Your task to perform on an android device: View the shopping cart on ebay.com. Search for razer blade on ebay.com, select the first entry, add it to the cart, then select checkout. Image 0: 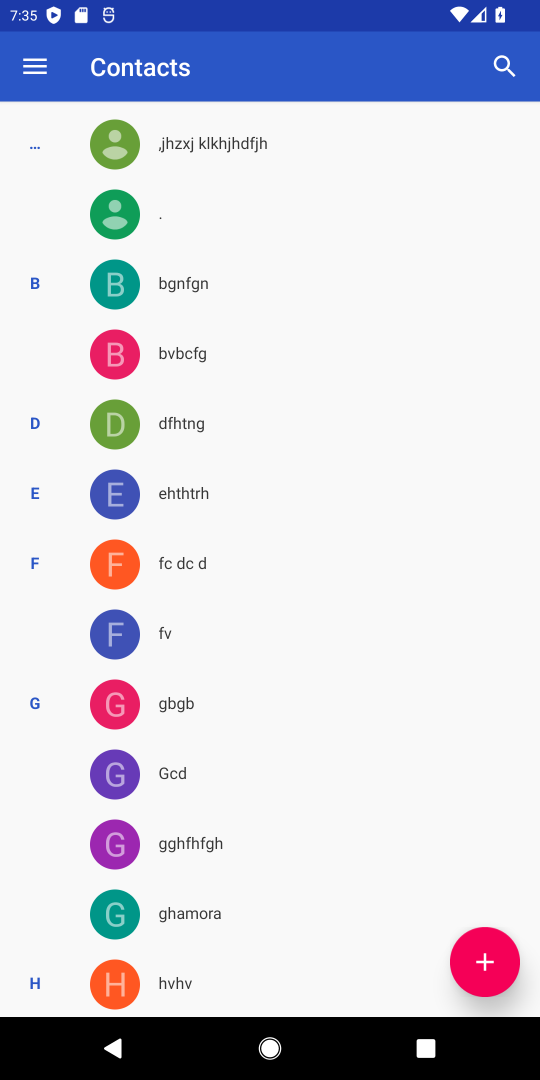
Step 0: press home button
Your task to perform on an android device: View the shopping cart on ebay.com. Search for razer blade on ebay.com, select the first entry, add it to the cart, then select checkout. Image 1: 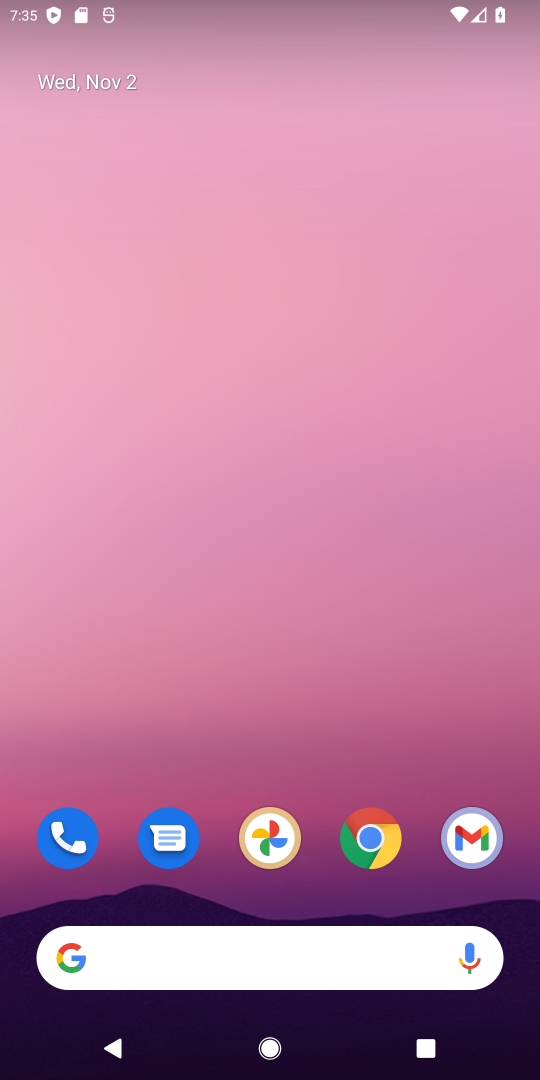
Step 1: click (369, 855)
Your task to perform on an android device: View the shopping cart on ebay.com. Search for razer blade on ebay.com, select the first entry, add it to the cart, then select checkout. Image 2: 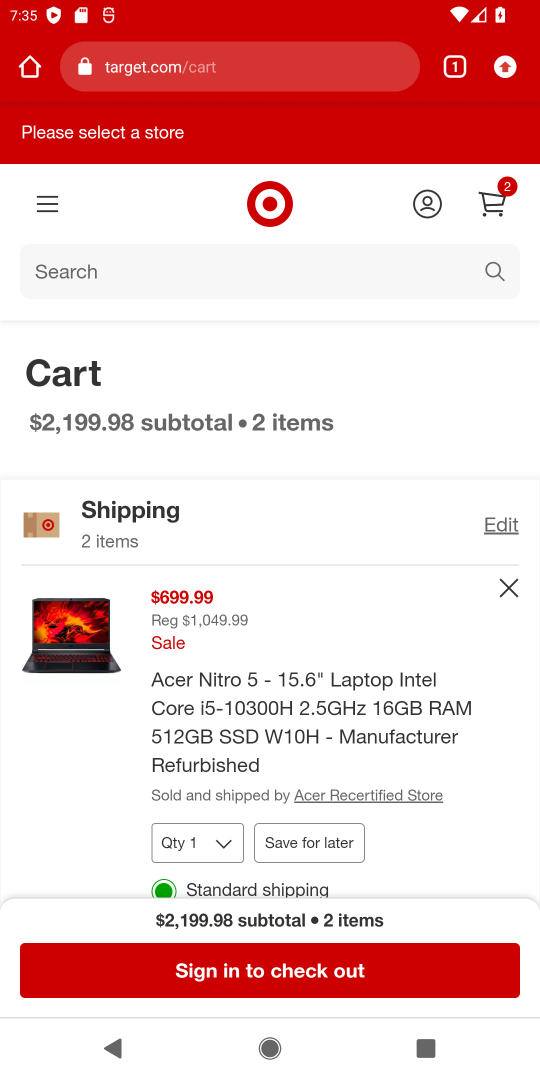
Step 2: click (302, 77)
Your task to perform on an android device: View the shopping cart on ebay.com. Search for razer blade on ebay.com, select the first entry, add it to the cart, then select checkout. Image 3: 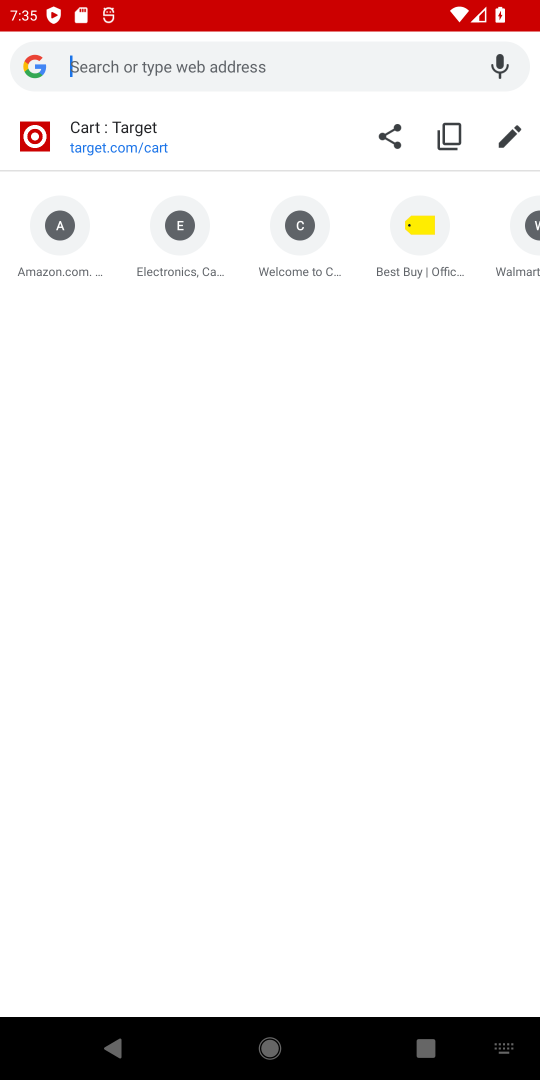
Step 3: type "ebay.com"
Your task to perform on an android device: View the shopping cart on ebay.com. Search for razer blade on ebay.com, select the first entry, add it to the cart, then select checkout. Image 4: 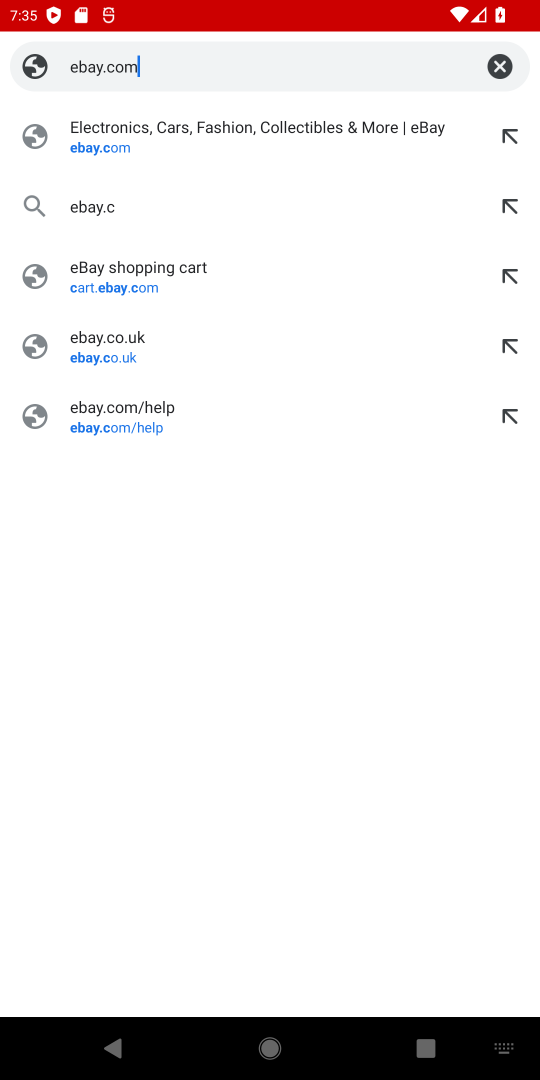
Step 4: type ""
Your task to perform on an android device: View the shopping cart on ebay.com. Search for razer blade on ebay.com, select the first entry, add it to the cart, then select checkout. Image 5: 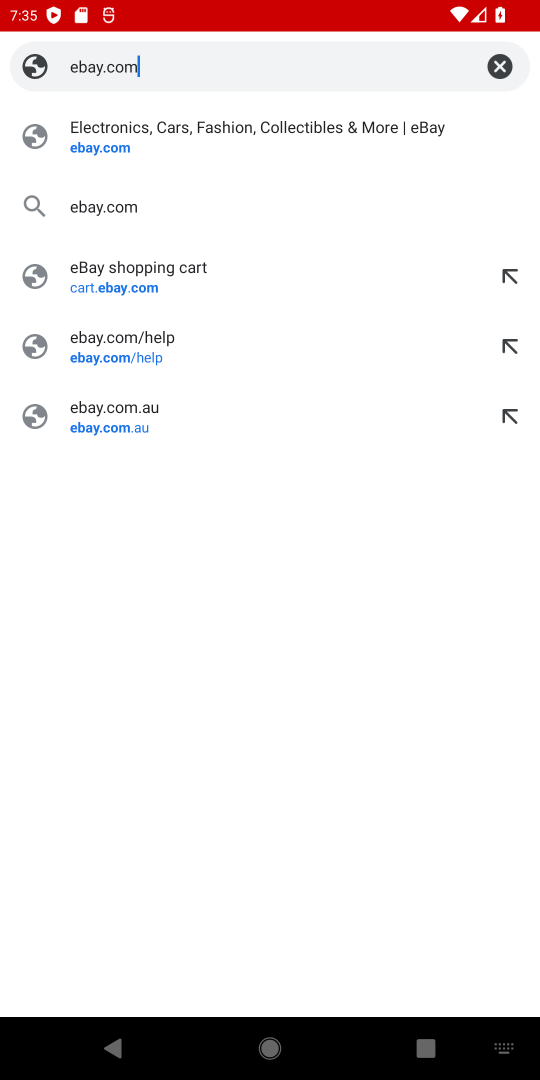
Step 5: press enter
Your task to perform on an android device: View the shopping cart on ebay.com. Search for razer blade on ebay.com, select the first entry, add it to the cart, then select checkout. Image 6: 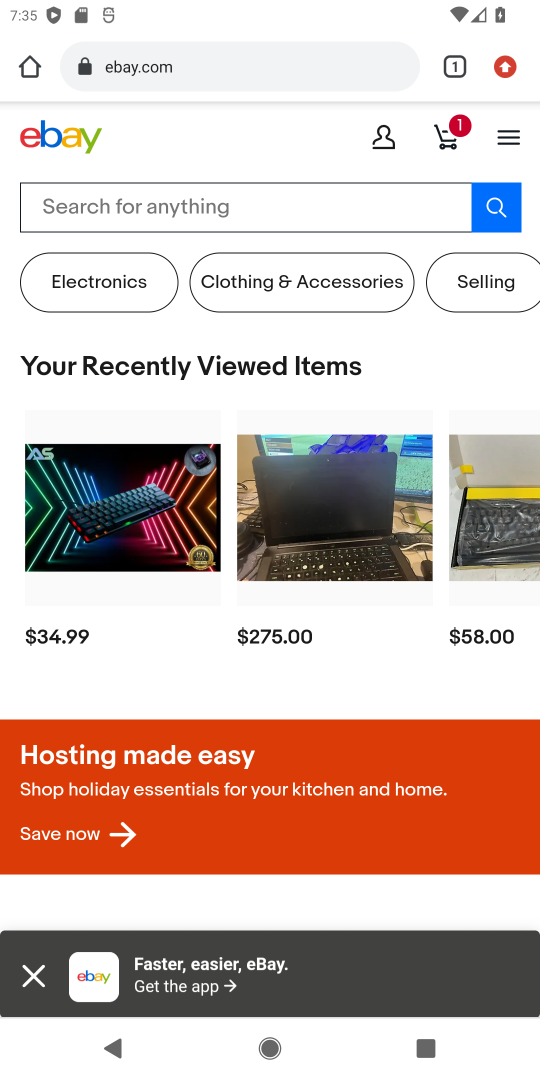
Step 6: click (451, 128)
Your task to perform on an android device: View the shopping cart on ebay.com. Search for razer blade on ebay.com, select the first entry, add it to the cart, then select checkout. Image 7: 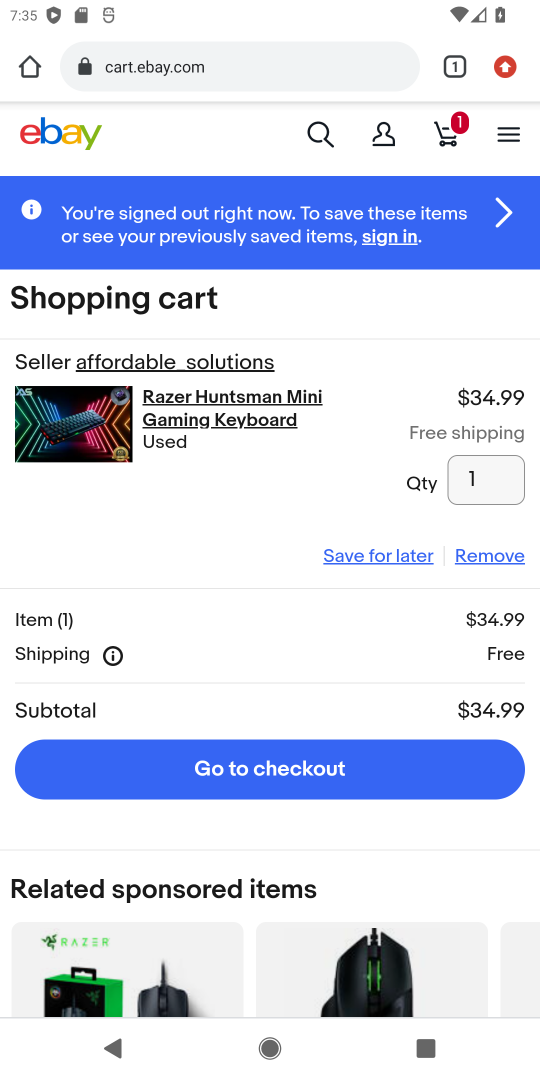
Step 7: click (493, 553)
Your task to perform on an android device: View the shopping cart on ebay.com. Search for razer blade on ebay.com, select the first entry, add it to the cart, then select checkout. Image 8: 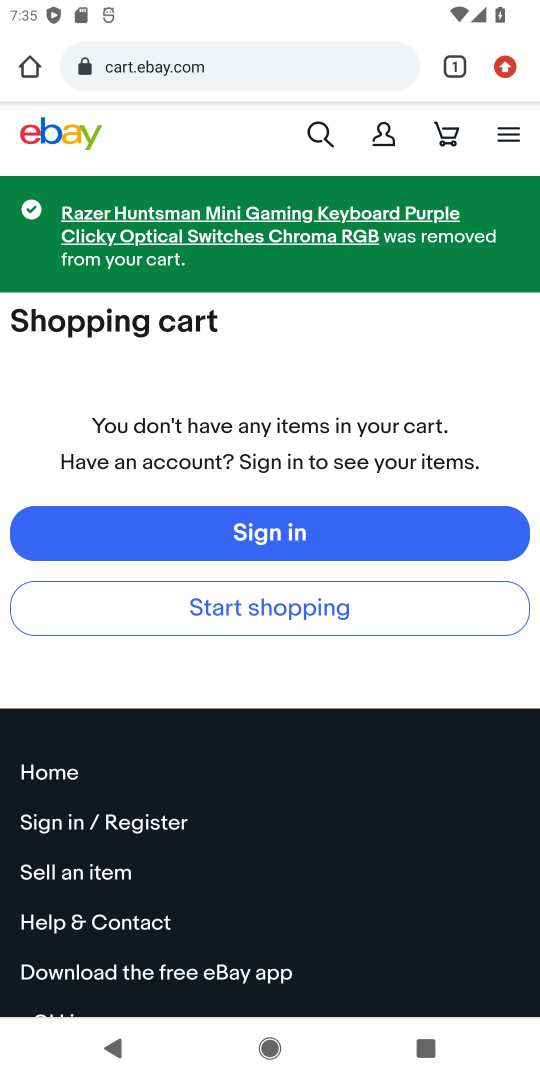
Step 8: click (294, 617)
Your task to perform on an android device: View the shopping cart on ebay.com. Search for razer blade on ebay.com, select the first entry, add it to the cart, then select checkout. Image 9: 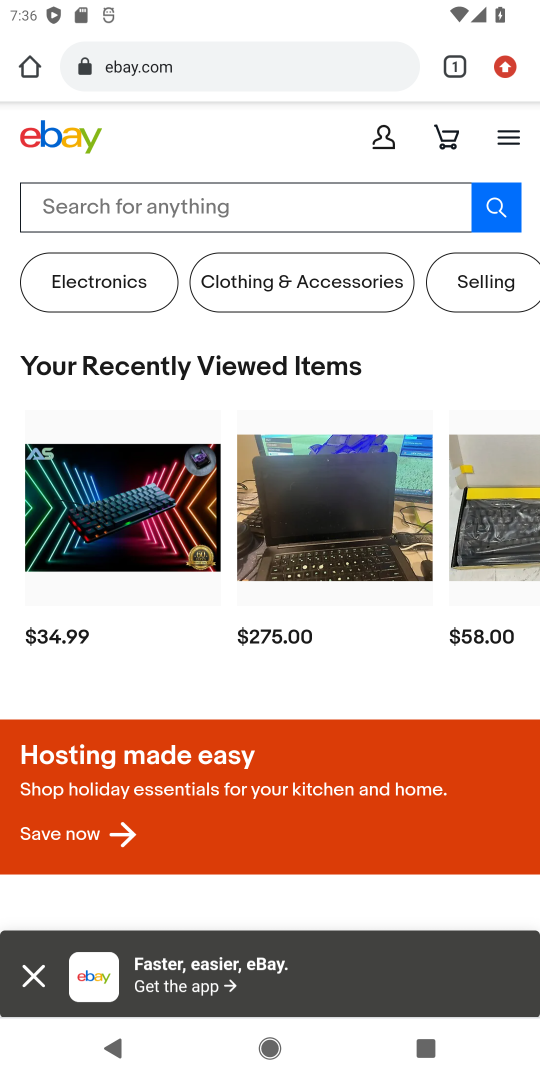
Step 9: click (225, 219)
Your task to perform on an android device: View the shopping cart on ebay.com. Search for razer blade on ebay.com, select the first entry, add it to the cart, then select checkout. Image 10: 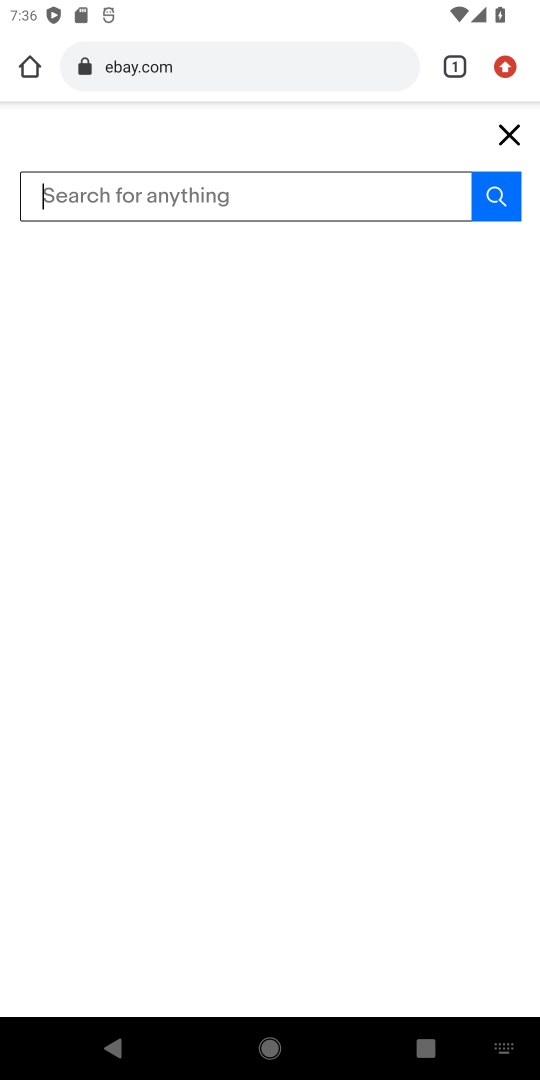
Step 10: type "razer blade"
Your task to perform on an android device: View the shopping cart on ebay.com. Search for razer blade on ebay.com, select the first entry, add it to the cart, then select checkout. Image 11: 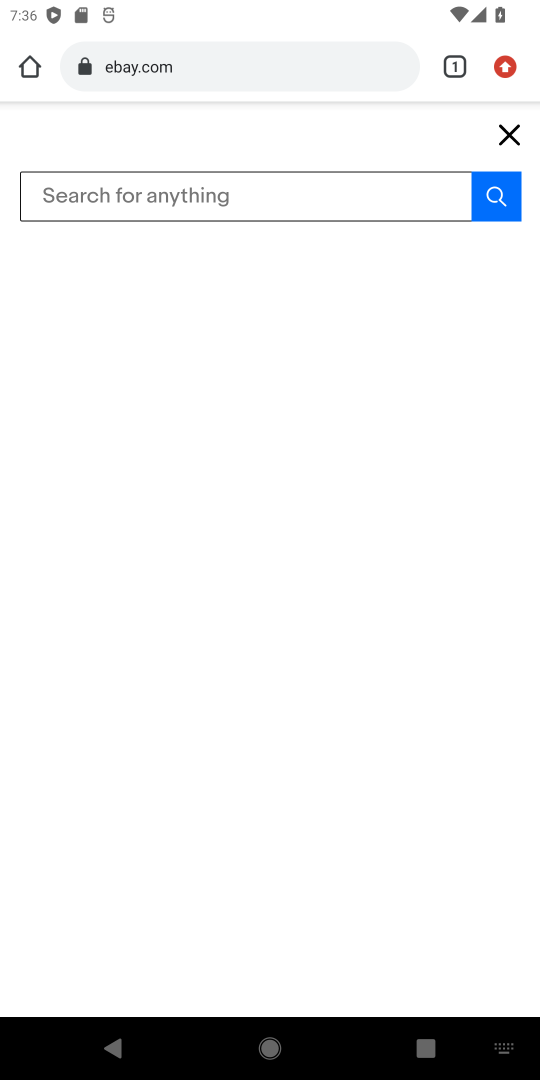
Step 11: type ""
Your task to perform on an android device: View the shopping cart on ebay.com. Search for razer blade on ebay.com, select the first entry, add it to the cart, then select checkout. Image 12: 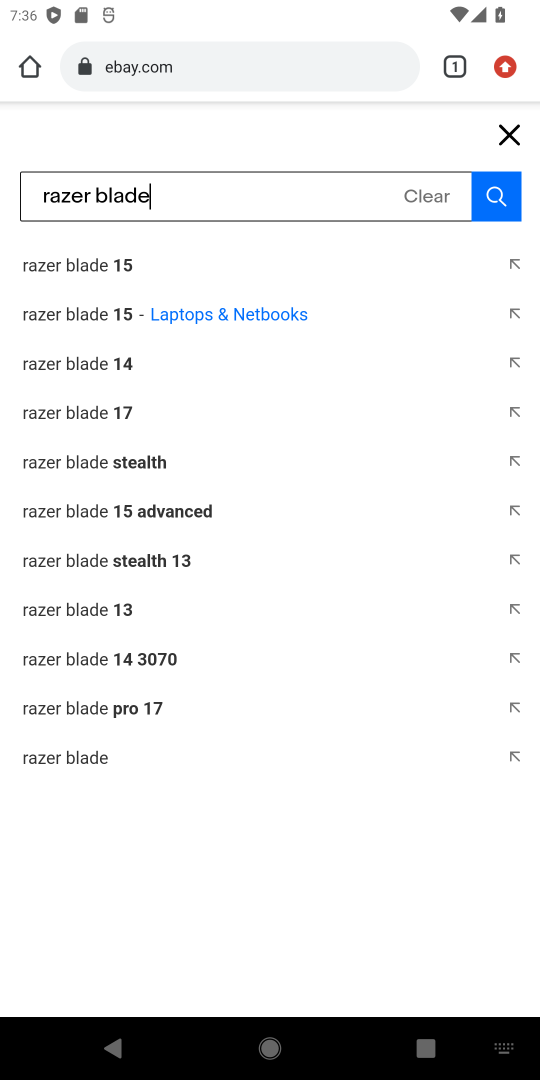
Step 12: press enter
Your task to perform on an android device: View the shopping cart on ebay.com. Search for razer blade on ebay.com, select the first entry, add it to the cart, then select checkout. Image 13: 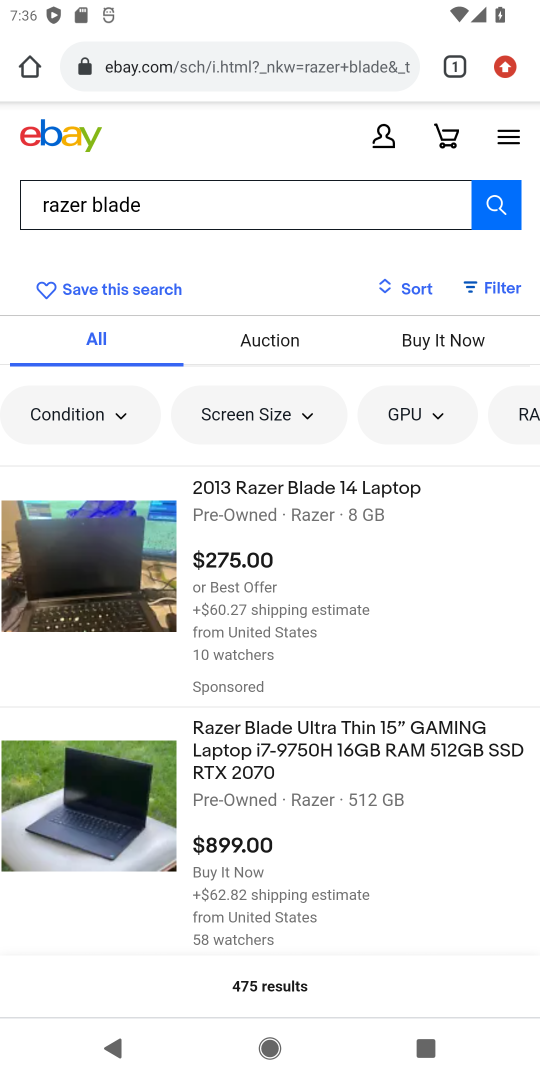
Step 13: click (269, 483)
Your task to perform on an android device: View the shopping cart on ebay.com. Search for razer blade on ebay.com, select the first entry, add it to the cart, then select checkout. Image 14: 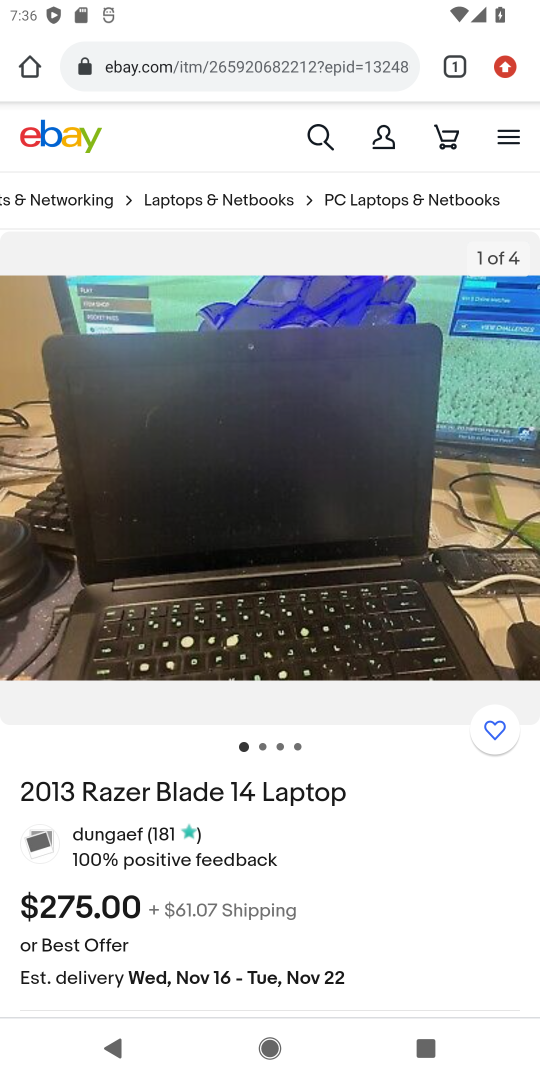
Step 14: drag from (448, 839) to (413, 303)
Your task to perform on an android device: View the shopping cart on ebay.com. Search for razer blade on ebay.com, select the first entry, add it to the cart, then select checkout. Image 15: 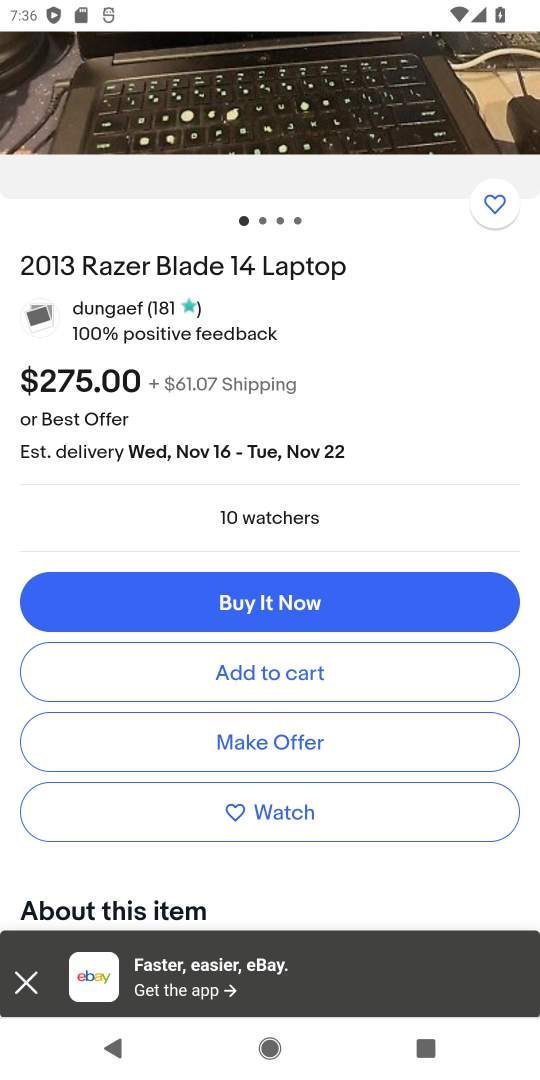
Step 15: click (395, 665)
Your task to perform on an android device: View the shopping cart on ebay.com. Search for razer blade on ebay.com, select the first entry, add it to the cart, then select checkout. Image 16: 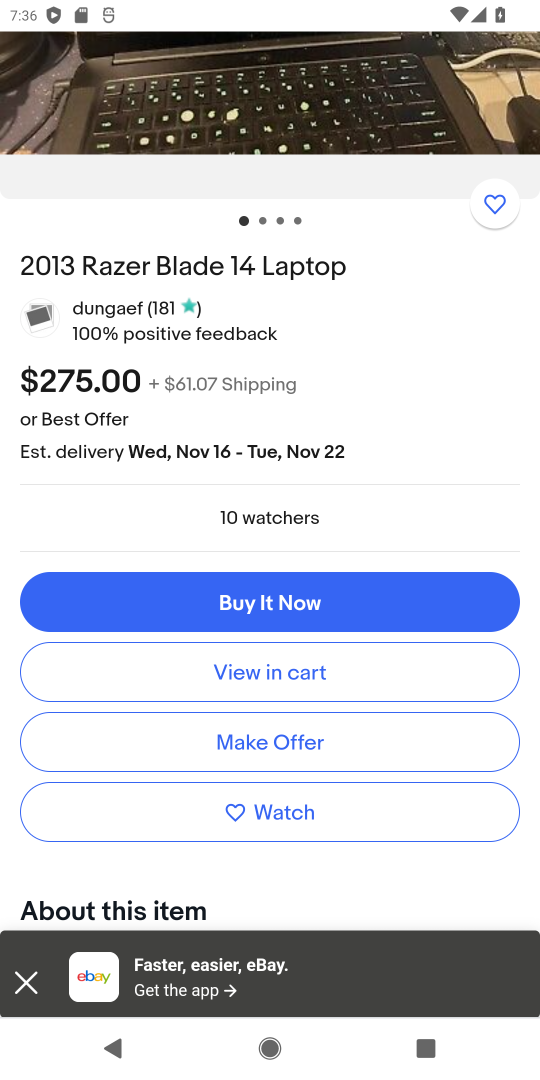
Step 16: click (384, 680)
Your task to perform on an android device: View the shopping cart on ebay.com. Search for razer blade on ebay.com, select the first entry, add it to the cart, then select checkout. Image 17: 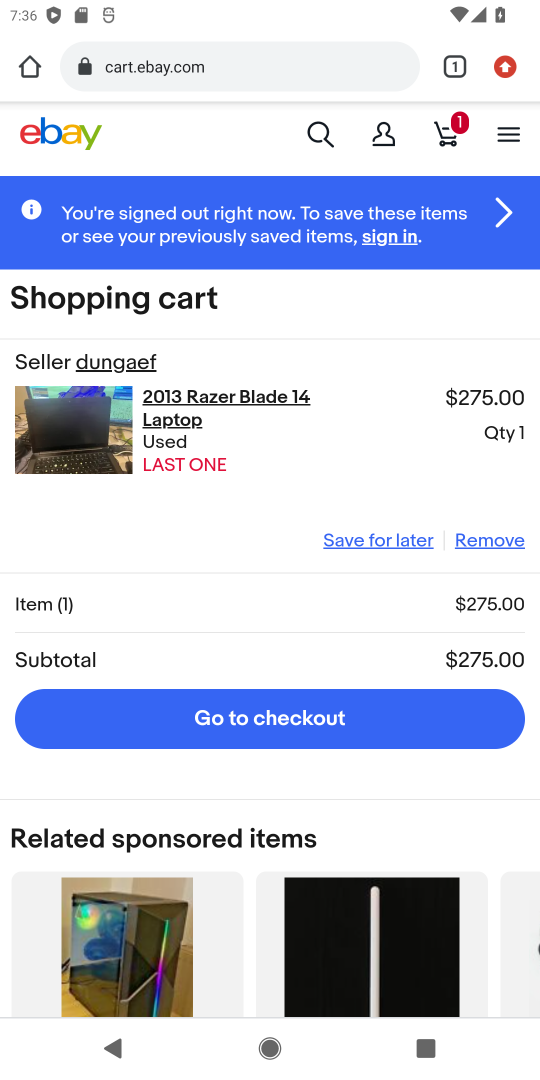
Step 17: click (371, 720)
Your task to perform on an android device: View the shopping cart on ebay.com. Search for razer blade on ebay.com, select the first entry, add it to the cart, then select checkout. Image 18: 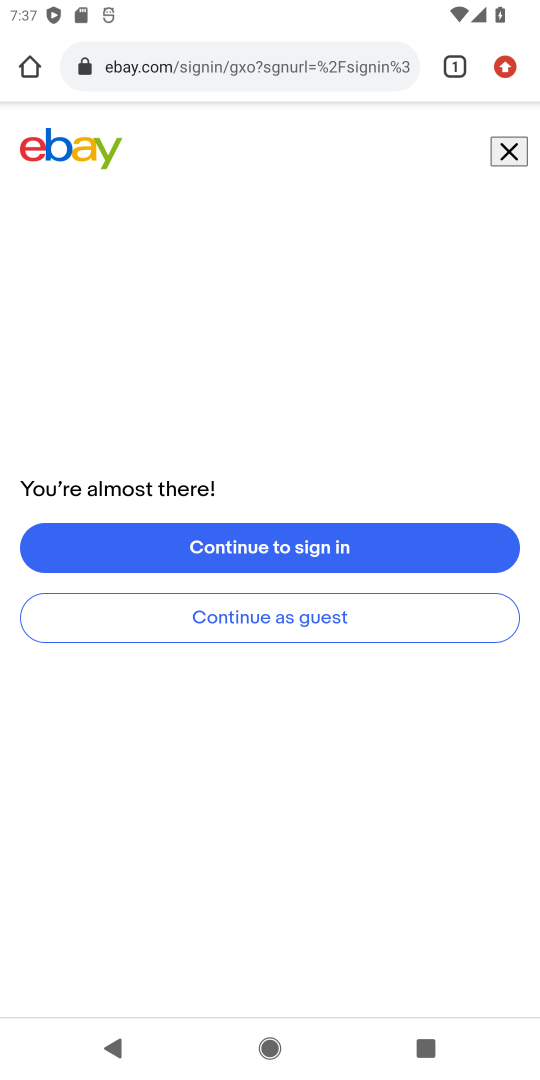
Step 18: task complete